Your task to perform on an android device: Go to wifi settings Image 0: 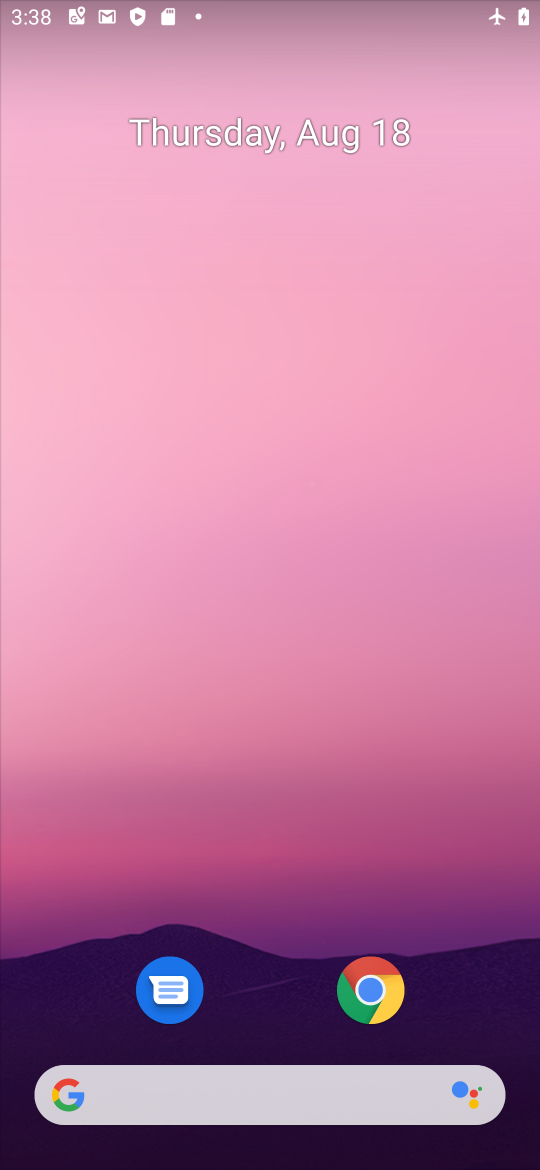
Step 0: drag from (292, 937) to (498, 167)
Your task to perform on an android device: Go to wifi settings Image 1: 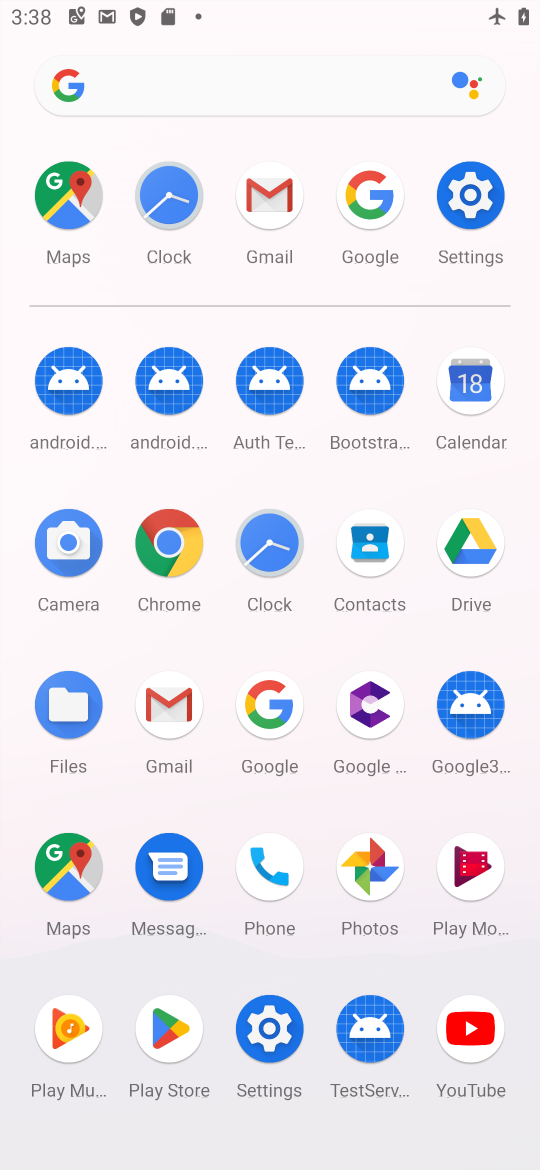
Step 1: click (266, 1016)
Your task to perform on an android device: Go to wifi settings Image 2: 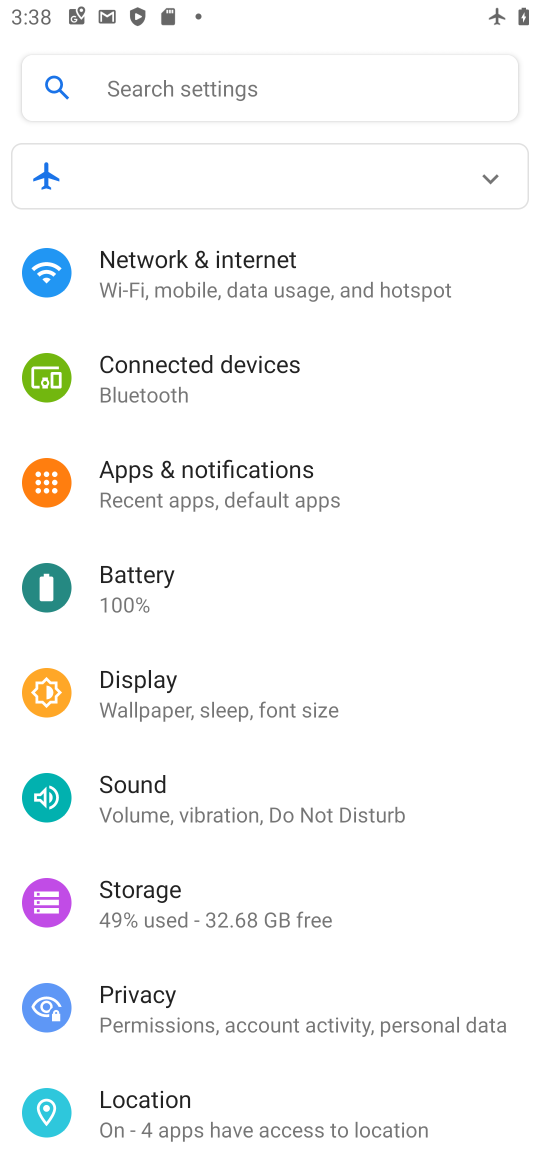
Step 2: click (223, 284)
Your task to perform on an android device: Go to wifi settings Image 3: 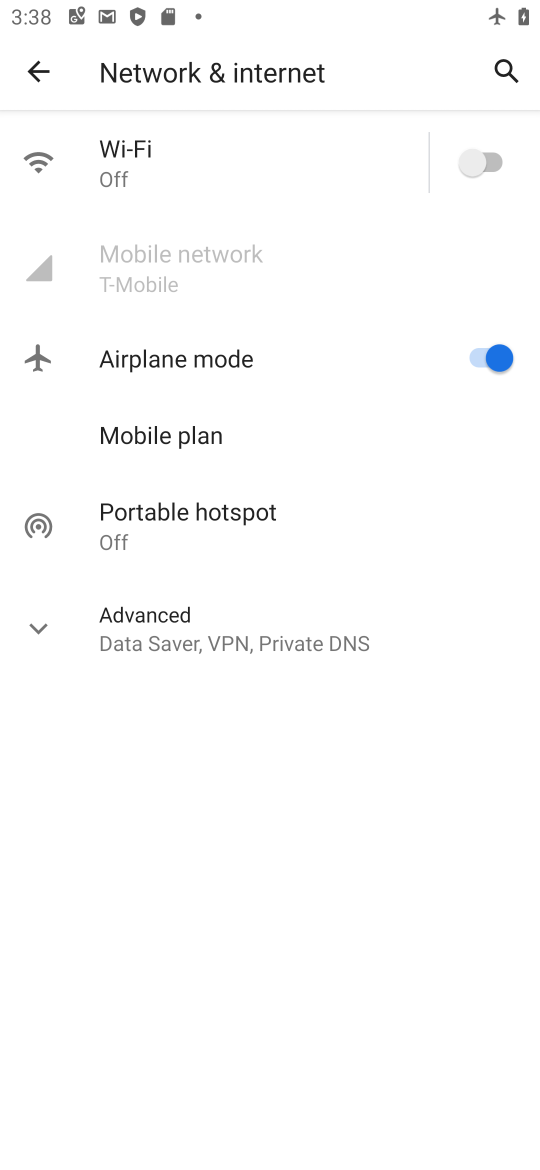
Step 3: click (209, 139)
Your task to perform on an android device: Go to wifi settings Image 4: 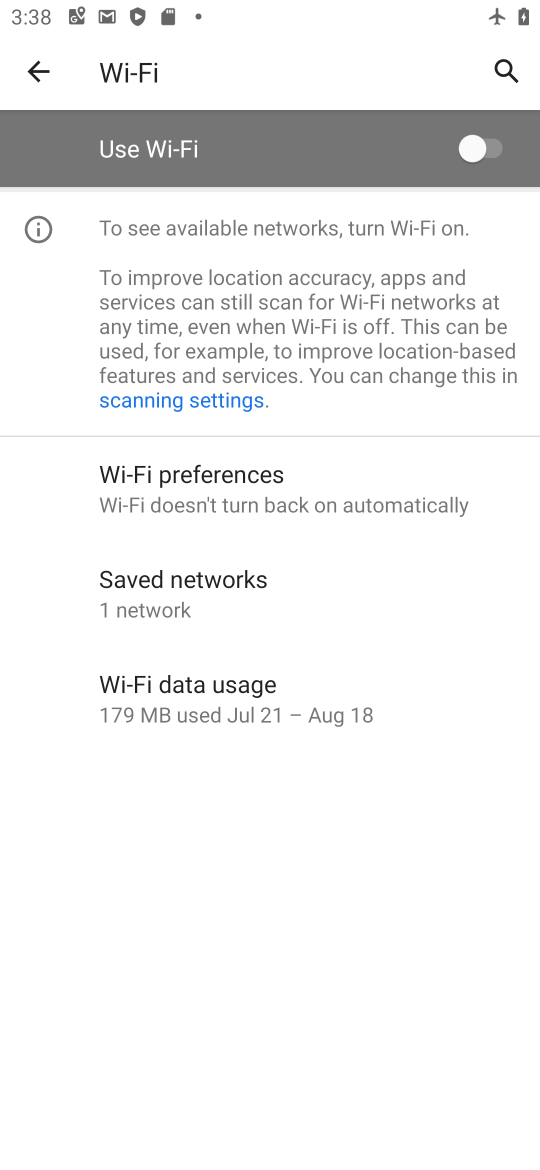
Step 4: click (489, 167)
Your task to perform on an android device: Go to wifi settings Image 5: 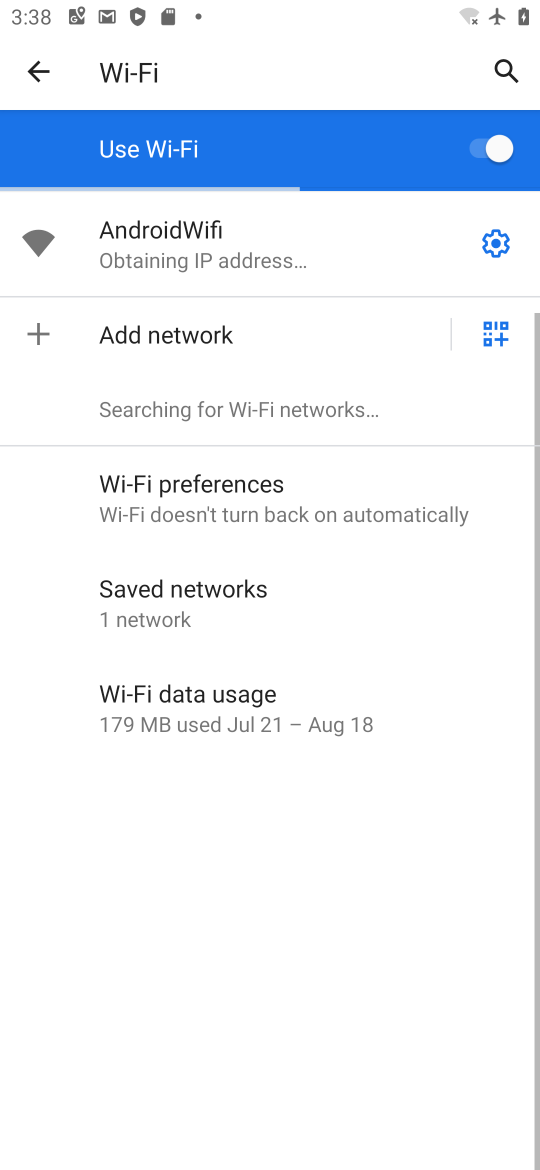
Step 5: click (500, 245)
Your task to perform on an android device: Go to wifi settings Image 6: 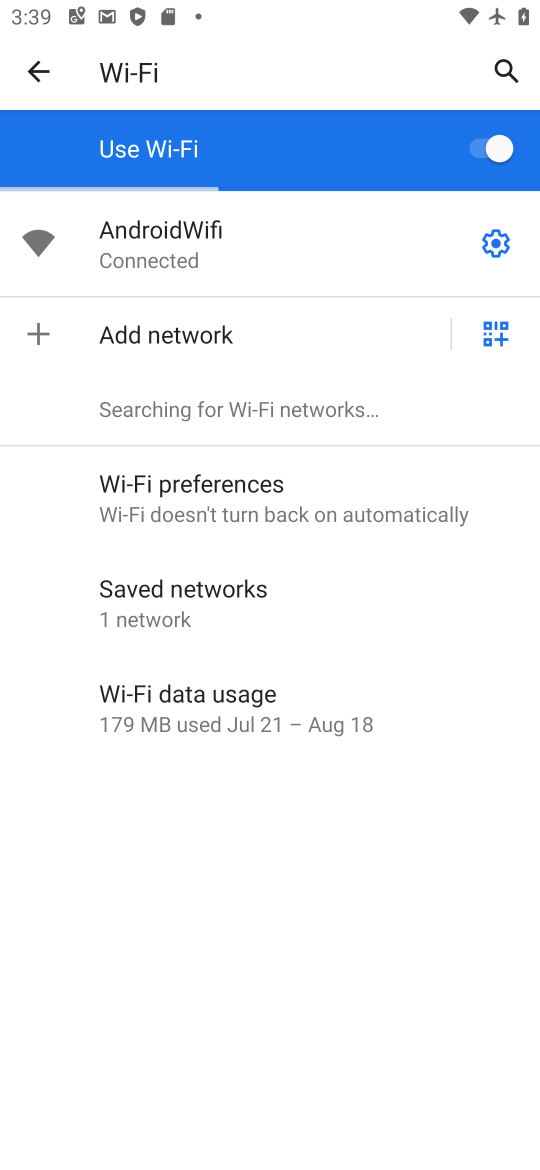
Step 6: click (494, 252)
Your task to perform on an android device: Go to wifi settings Image 7: 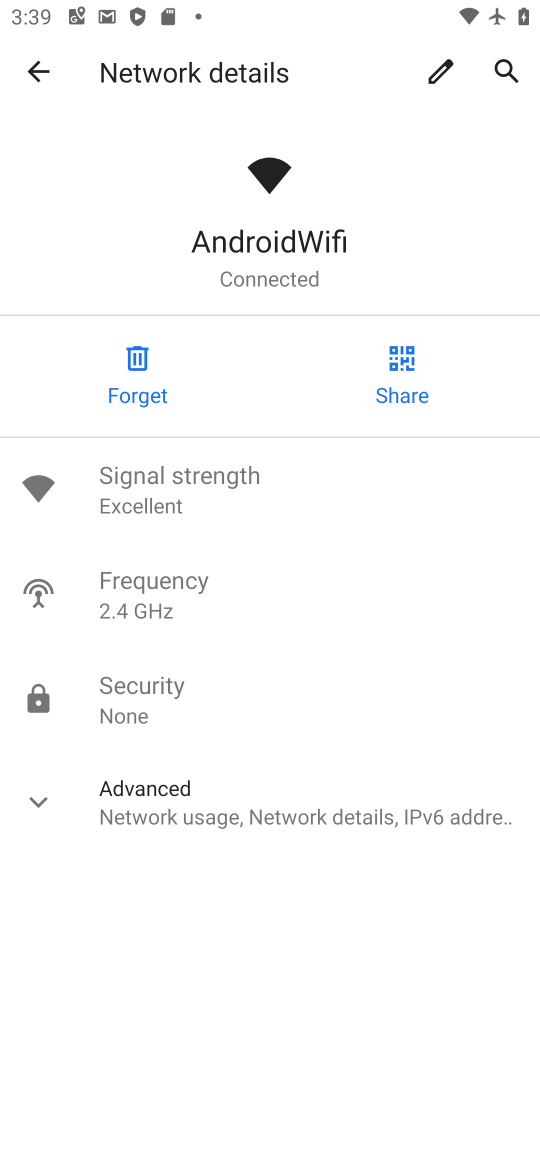
Step 7: task complete